Your task to perform on an android device: turn off sleep mode Image 0: 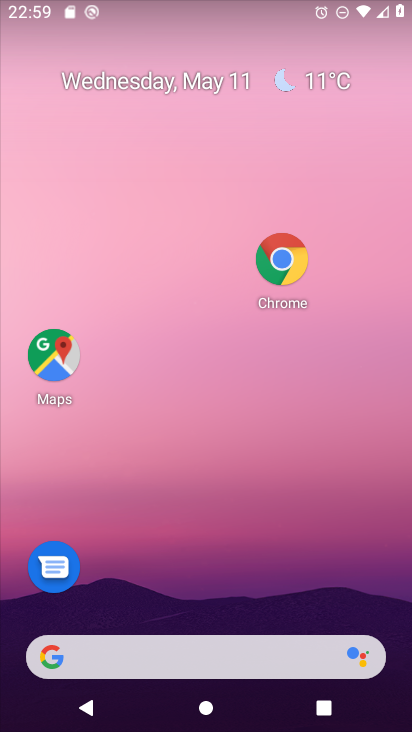
Step 0: drag from (168, 667) to (327, 121)
Your task to perform on an android device: turn off sleep mode Image 1: 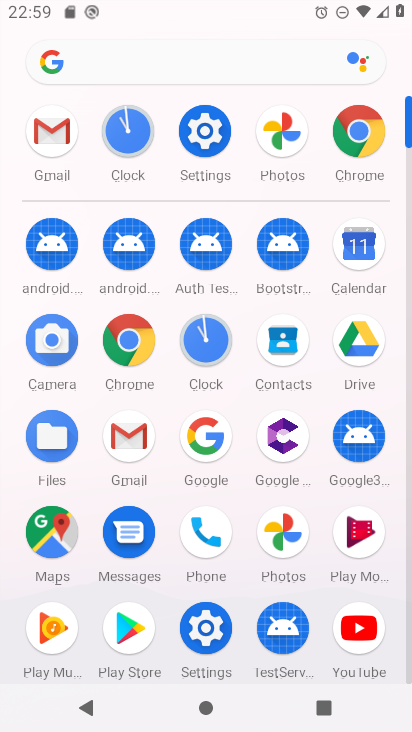
Step 1: click (210, 134)
Your task to perform on an android device: turn off sleep mode Image 2: 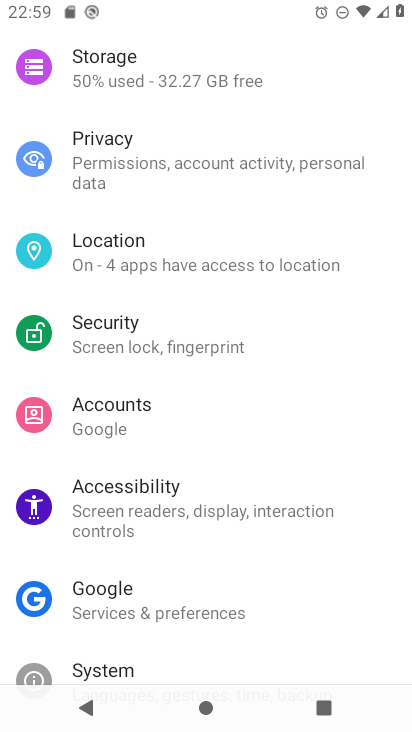
Step 2: drag from (305, 195) to (278, 545)
Your task to perform on an android device: turn off sleep mode Image 3: 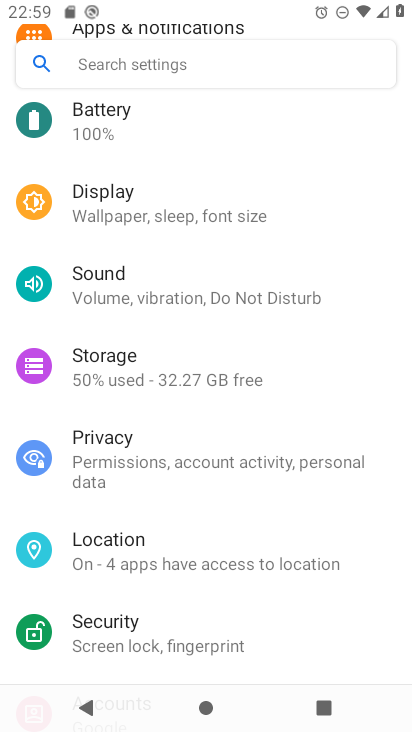
Step 3: click (183, 213)
Your task to perform on an android device: turn off sleep mode Image 4: 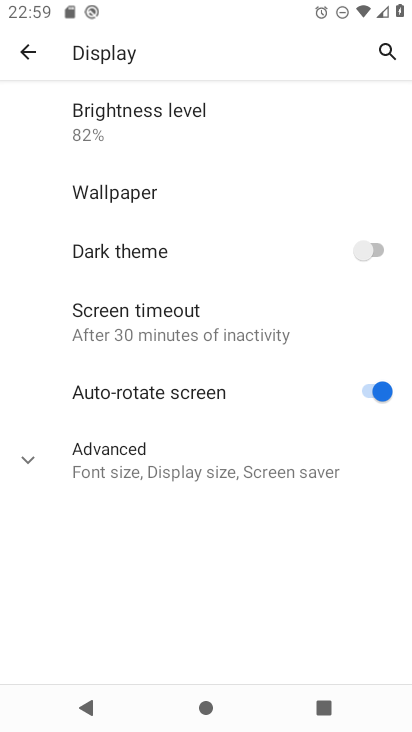
Step 4: click (32, 458)
Your task to perform on an android device: turn off sleep mode Image 5: 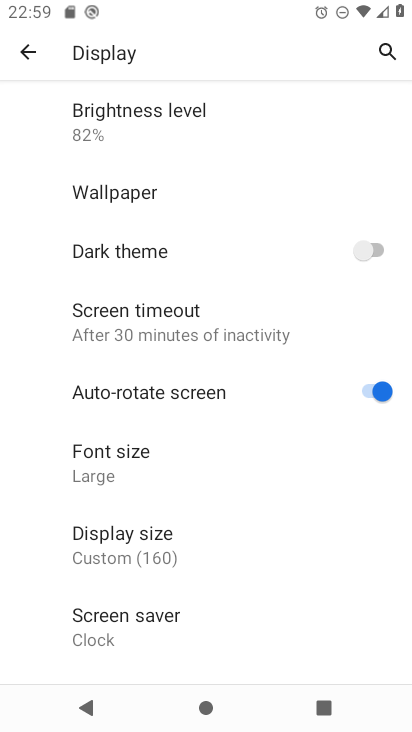
Step 5: task complete